Your task to perform on an android device: allow notifications from all sites in the chrome app Image 0: 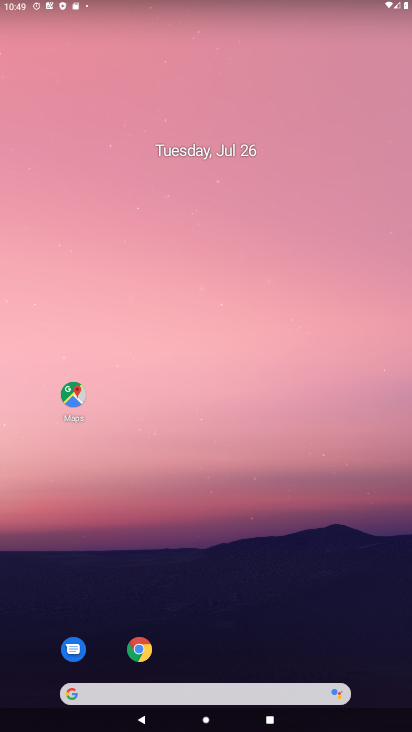
Step 0: click (138, 645)
Your task to perform on an android device: allow notifications from all sites in the chrome app Image 1: 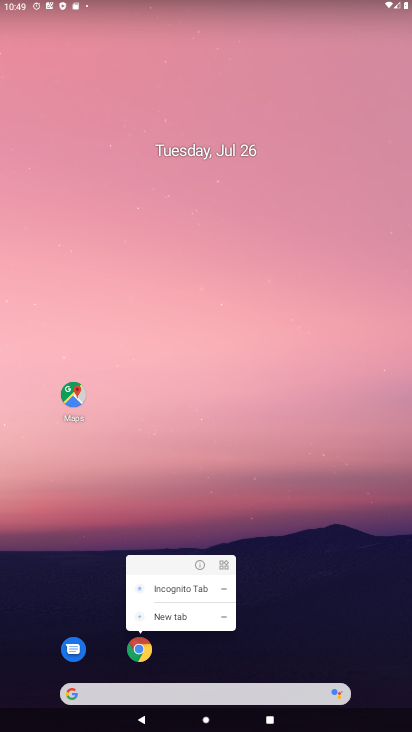
Step 1: click (204, 559)
Your task to perform on an android device: allow notifications from all sites in the chrome app Image 2: 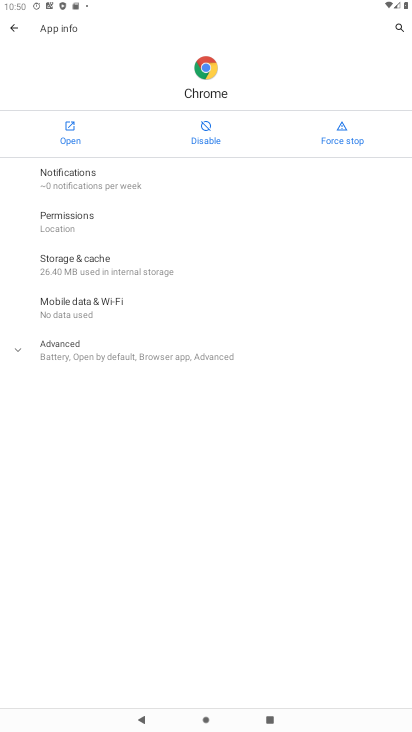
Step 2: click (53, 130)
Your task to perform on an android device: allow notifications from all sites in the chrome app Image 3: 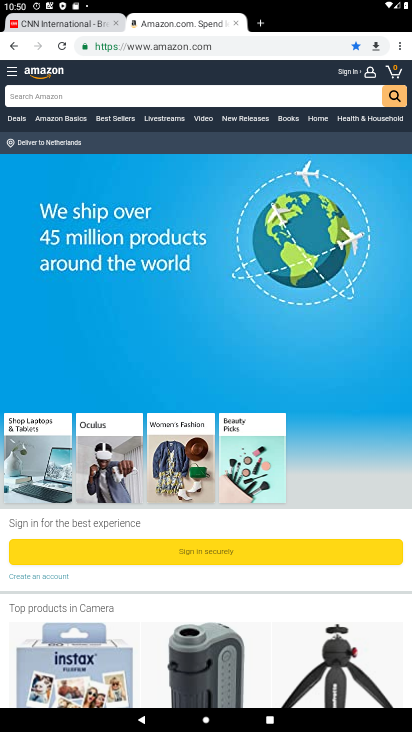
Step 3: drag from (402, 47) to (317, 313)
Your task to perform on an android device: allow notifications from all sites in the chrome app Image 4: 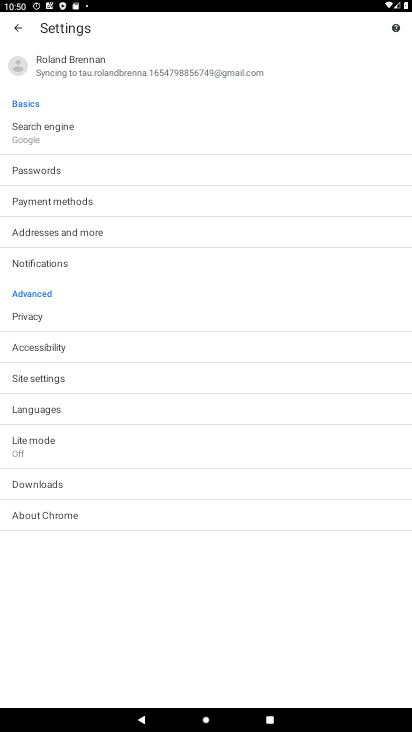
Step 4: click (76, 391)
Your task to perform on an android device: allow notifications from all sites in the chrome app Image 5: 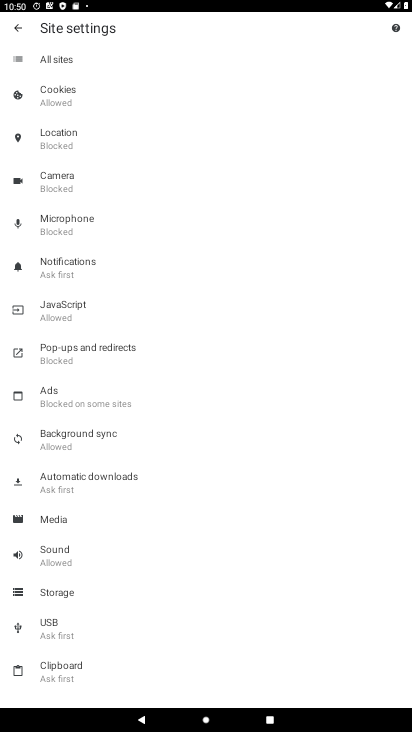
Step 5: click (67, 269)
Your task to perform on an android device: allow notifications from all sites in the chrome app Image 6: 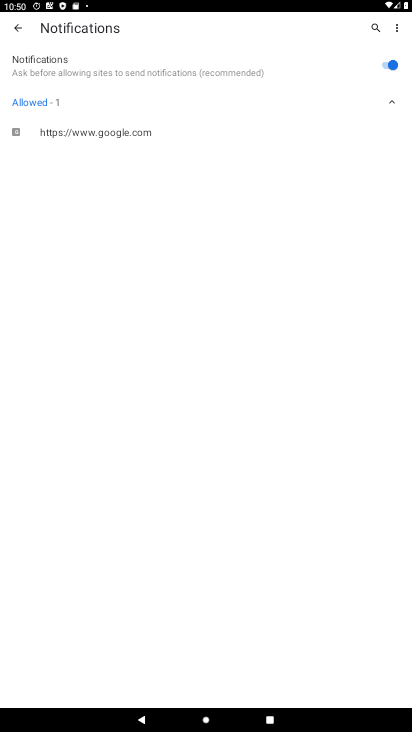
Step 6: task complete